Your task to perform on an android device: turn notification dots on Image 0: 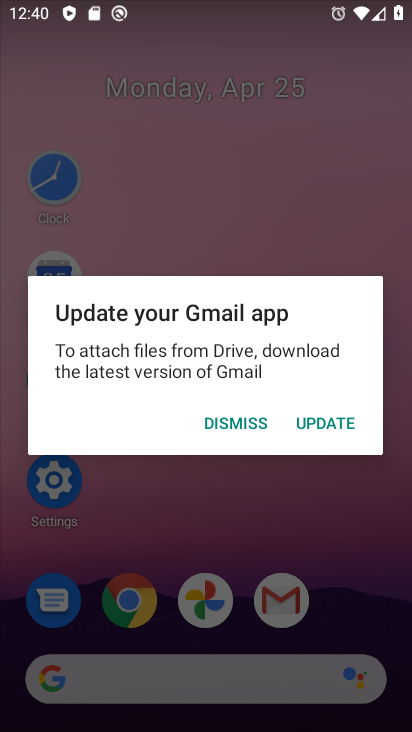
Step 0: press home button
Your task to perform on an android device: turn notification dots on Image 1: 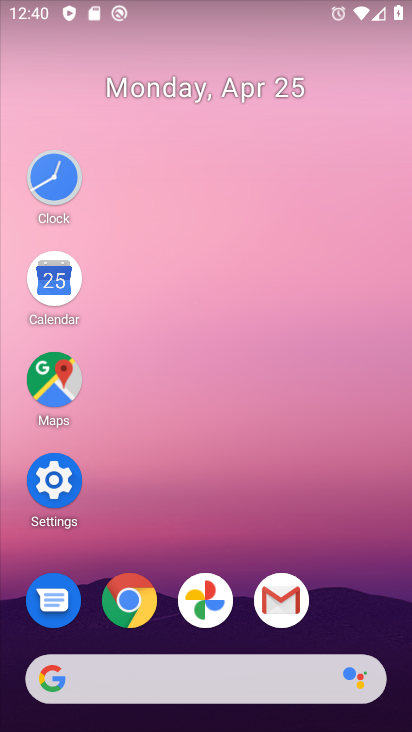
Step 1: click (57, 481)
Your task to perform on an android device: turn notification dots on Image 2: 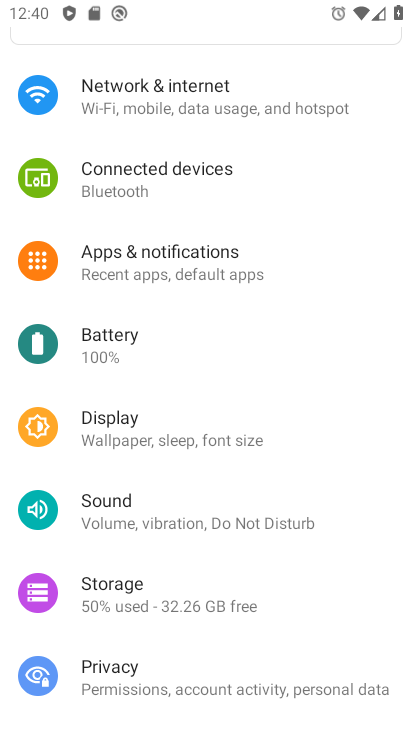
Step 2: click (170, 250)
Your task to perform on an android device: turn notification dots on Image 3: 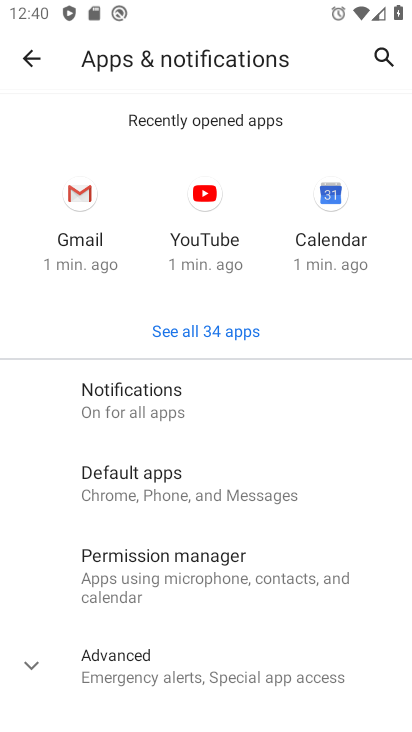
Step 3: click (131, 382)
Your task to perform on an android device: turn notification dots on Image 4: 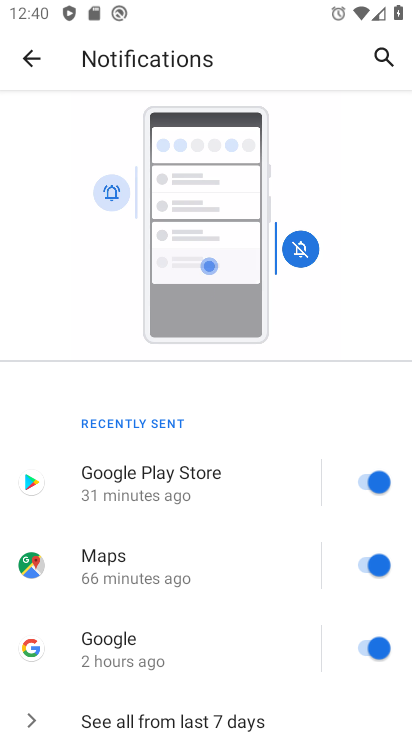
Step 4: drag from (196, 600) to (112, 213)
Your task to perform on an android device: turn notification dots on Image 5: 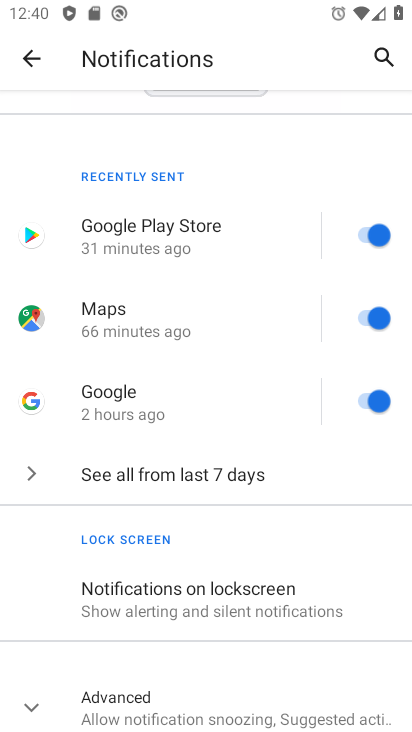
Step 5: click (88, 711)
Your task to perform on an android device: turn notification dots on Image 6: 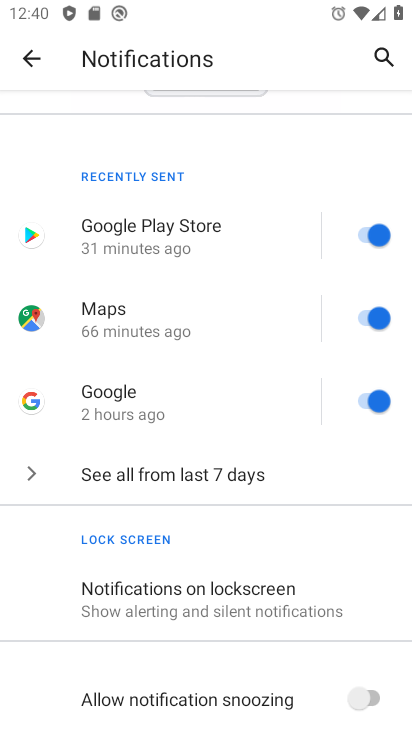
Step 6: drag from (196, 671) to (114, 256)
Your task to perform on an android device: turn notification dots on Image 7: 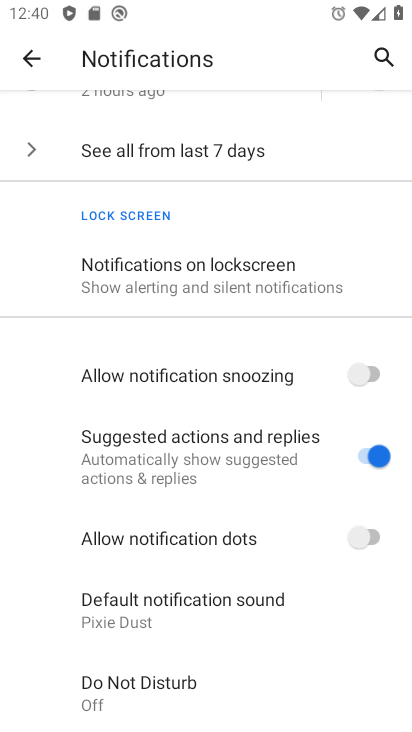
Step 7: click (355, 534)
Your task to perform on an android device: turn notification dots on Image 8: 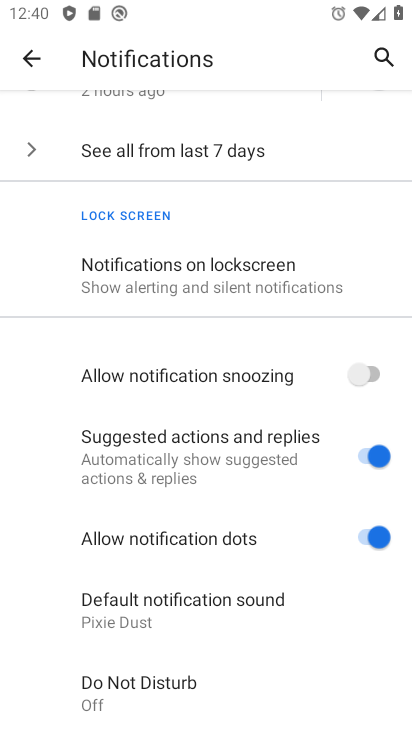
Step 8: task complete